Your task to perform on an android device: empty trash in google photos Image 0: 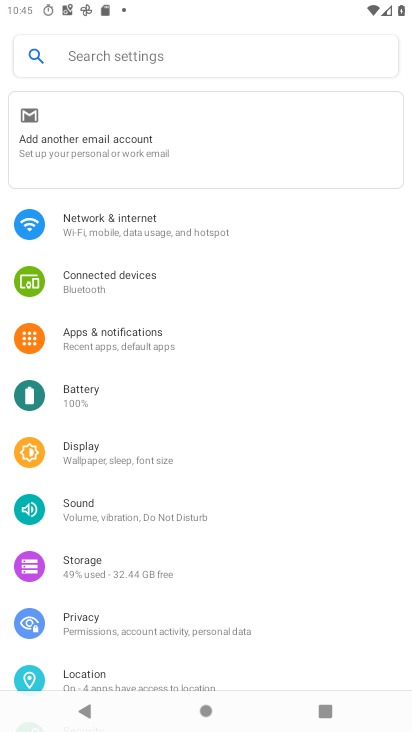
Step 0: drag from (105, 585) to (124, 249)
Your task to perform on an android device: empty trash in google photos Image 1: 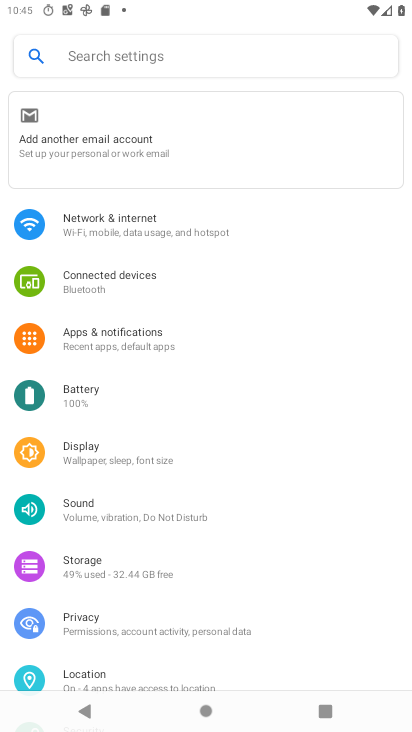
Step 1: drag from (191, 473) to (229, 178)
Your task to perform on an android device: empty trash in google photos Image 2: 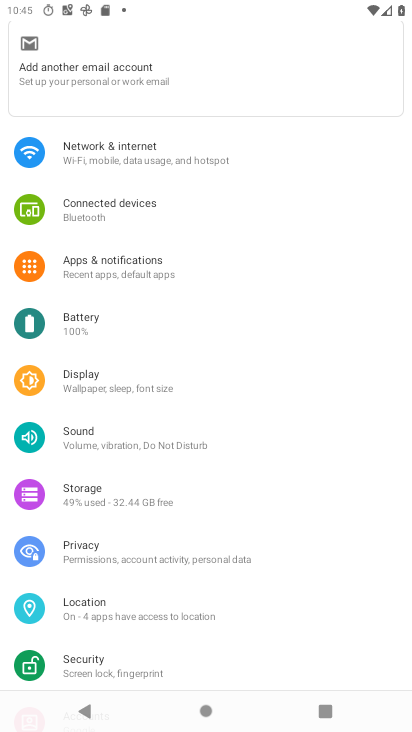
Step 2: drag from (185, 458) to (170, 236)
Your task to perform on an android device: empty trash in google photos Image 3: 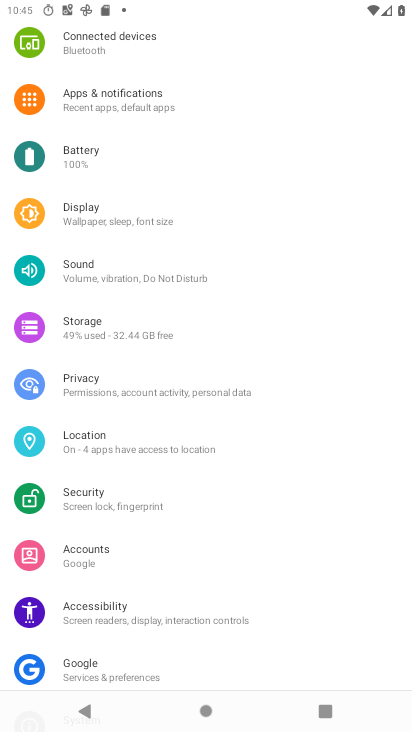
Step 3: drag from (117, 465) to (117, 107)
Your task to perform on an android device: empty trash in google photos Image 4: 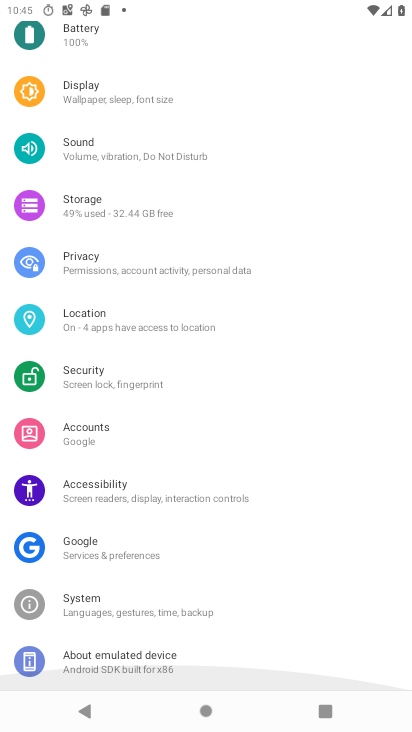
Step 4: drag from (139, 452) to (134, 244)
Your task to perform on an android device: empty trash in google photos Image 5: 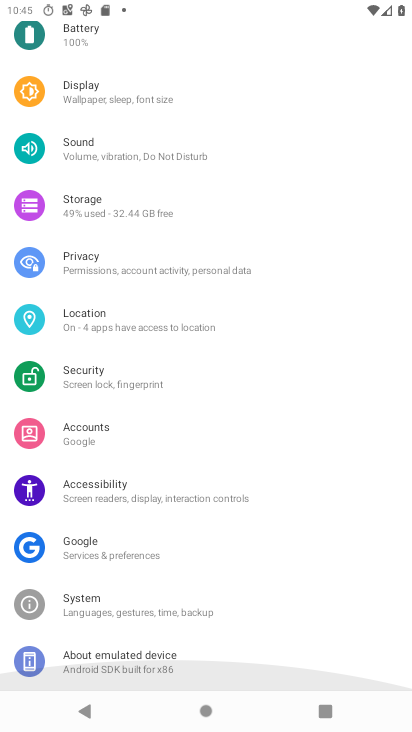
Step 5: drag from (140, 540) to (131, 233)
Your task to perform on an android device: empty trash in google photos Image 6: 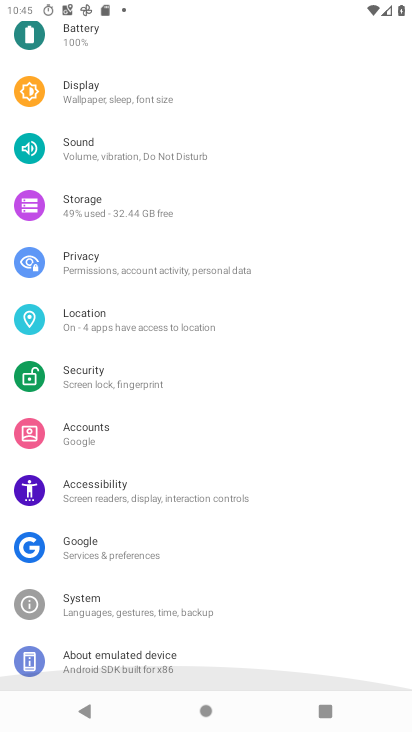
Step 6: drag from (122, 513) to (108, 202)
Your task to perform on an android device: empty trash in google photos Image 7: 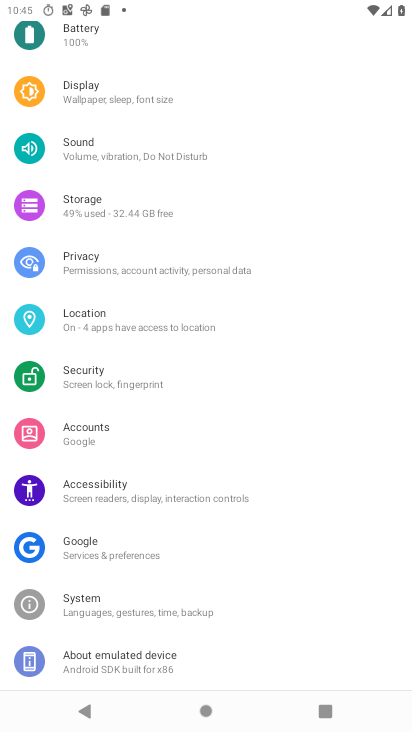
Step 7: drag from (170, 530) to (176, 255)
Your task to perform on an android device: empty trash in google photos Image 8: 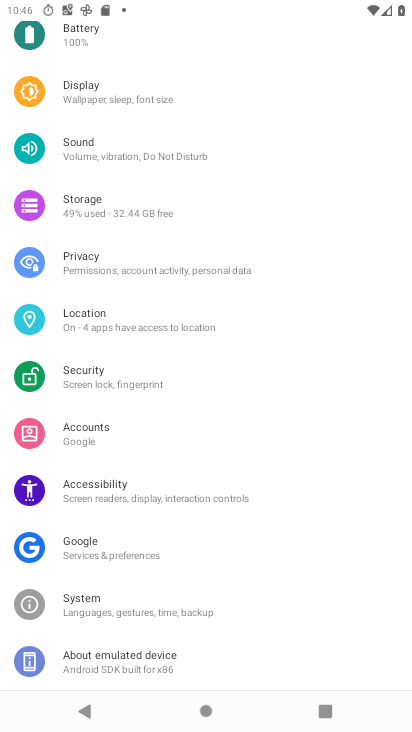
Step 8: drag from (96, 233) to (178, 638)
Your task to perform on an android device: empty trash in google photos Image 9: 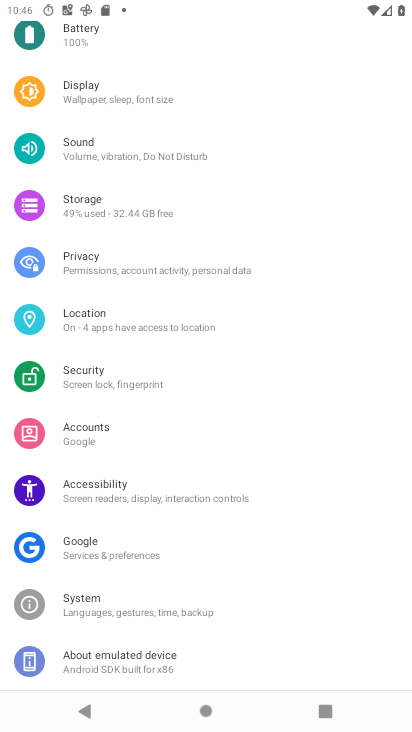
Step 9: drag from (137, 292) to (139, 613)
Your task to perform on an android device: empty trash in google photos Image 10: 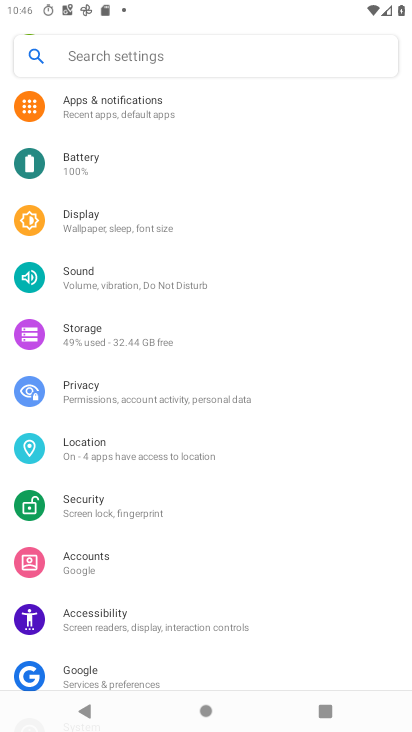
Step 10: drag from (122, 456) to (147, 631)
Your task to perform on an android device: empty trash in google photos Image 11: 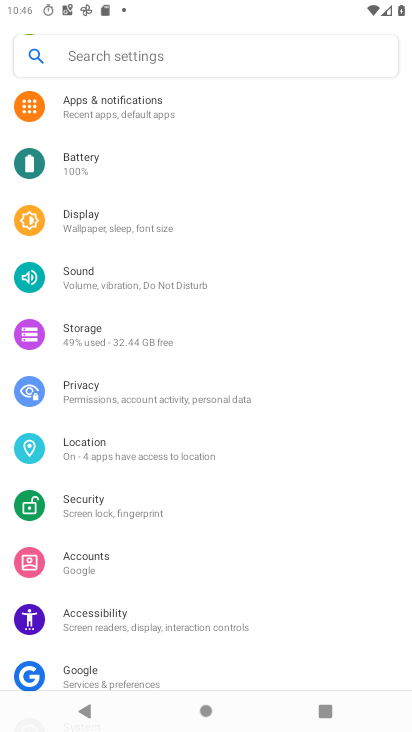
Step 11: drag from (118, 327) to (148, 523)
Your task to perform on an android device: empty trash in google photos Image 12: 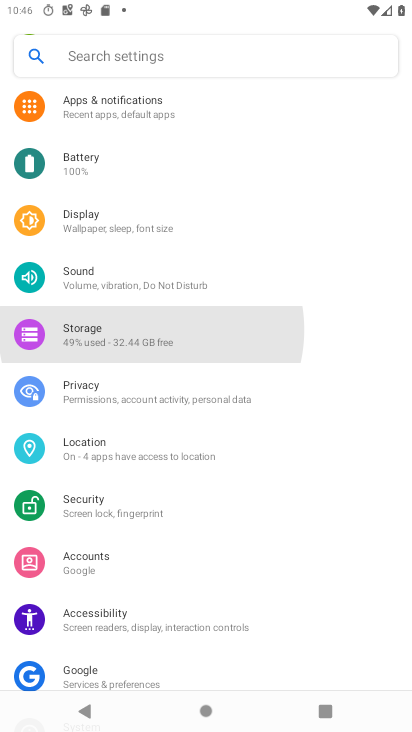
Step 12: drag from (129, 294) to (113, 521)
Your task to perform on an android device: empty trash in google photos Image 13: 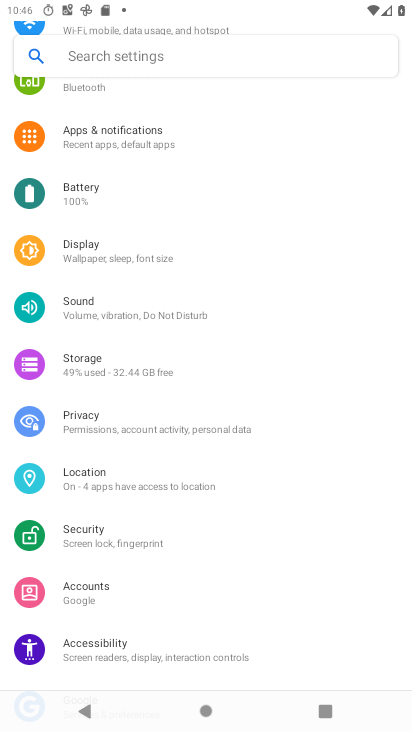
Step 13: drag from (93, 236) to (147, 499)
Your task to perform on an android device: empty trash in google photos Image 14: 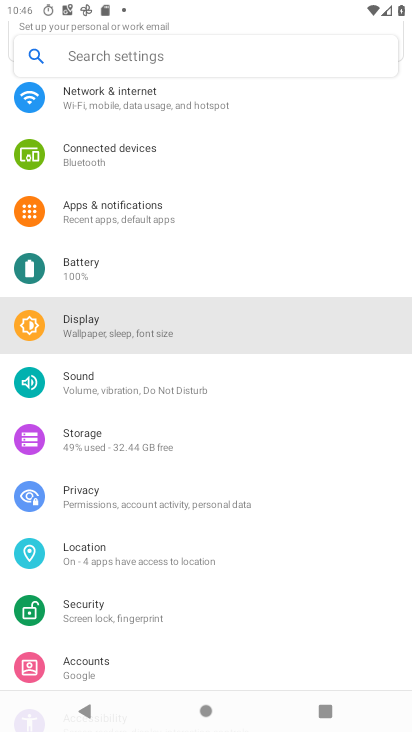
Step 14: drag from (95, 256) to (95, 547)
Your task to perform on an android device: empty trash in google photos Image 15: 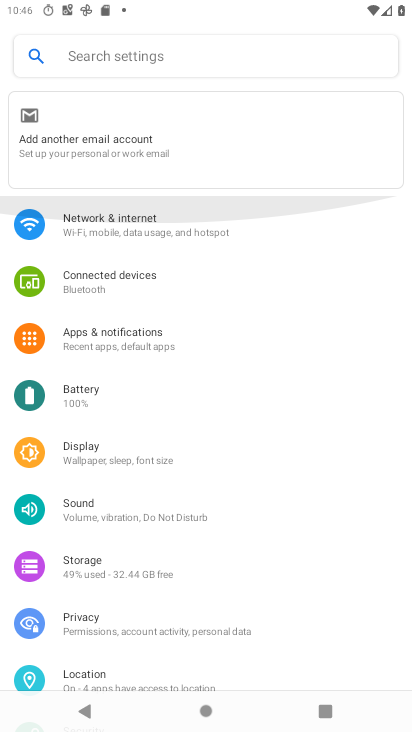
Step 15: drag from (103, 283) to (135, 502)
Your task to perform on an android device: empty trash in google photos Image 16: 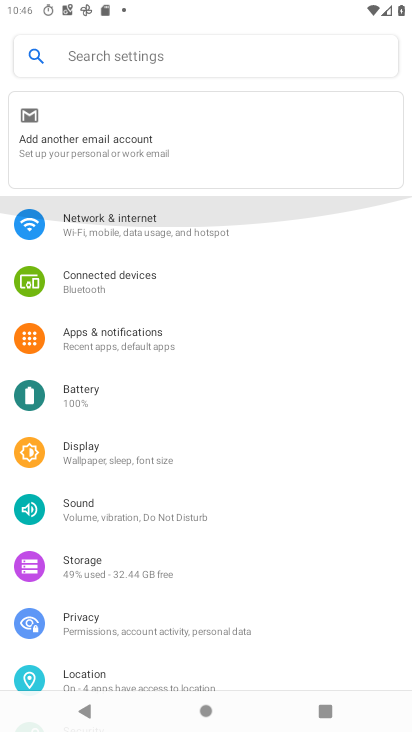
Step 16: drag from (116, 399) to (122, 475)
Your task to perform on an android device: empty trash in google photos Image 17: 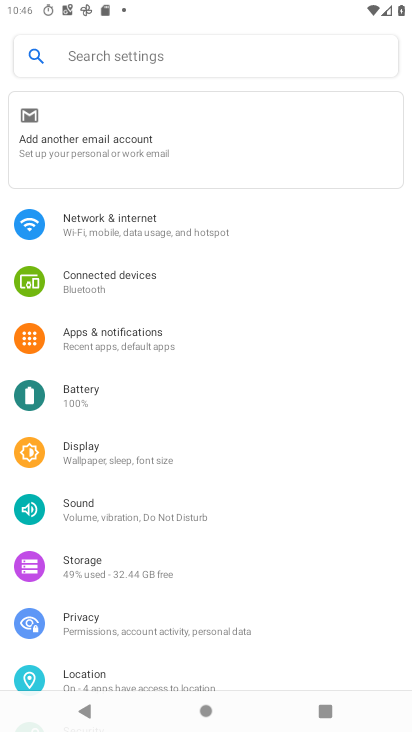
Step 17: drag from (104, 596) to (133, 316)
Your task to perform on an android device: empty trash in google photos Image 18: 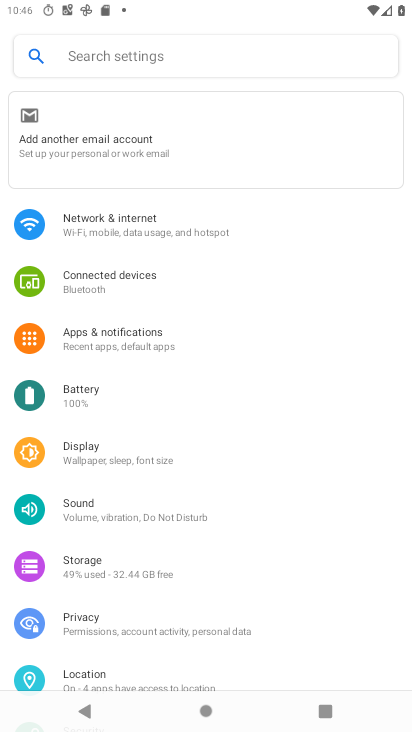
Step 18: drag from (131, 512) to (160, 292)
Your task to perform on an android device: empty trash in google photos Image 19: 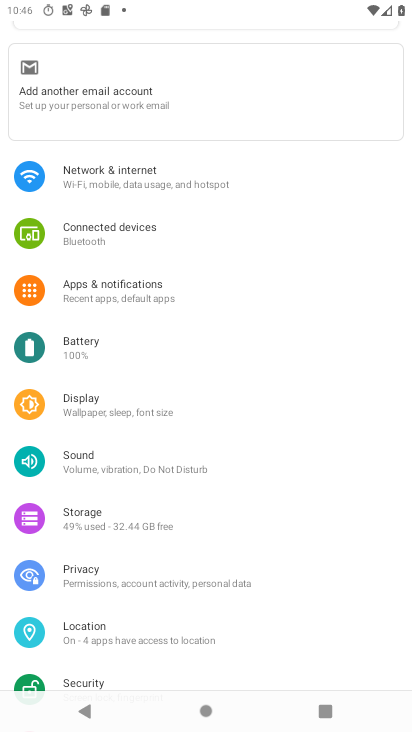
Step 19: press back button
Your task to perform on an android device: empty trash in google photos Image 20: 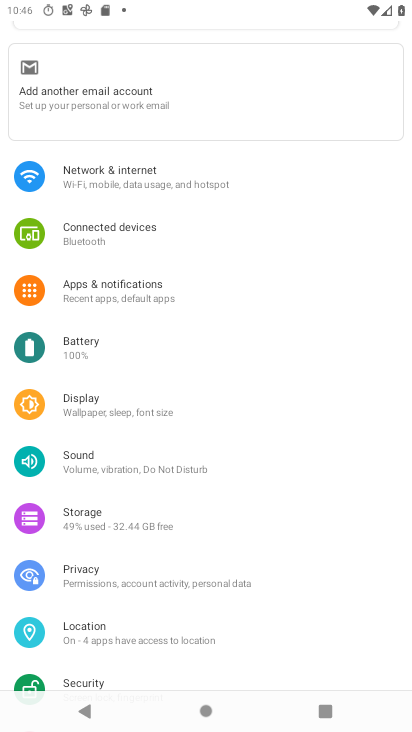
Step 20: press back button
Your task to perform on an android device: empty trash in google photos Image 21: 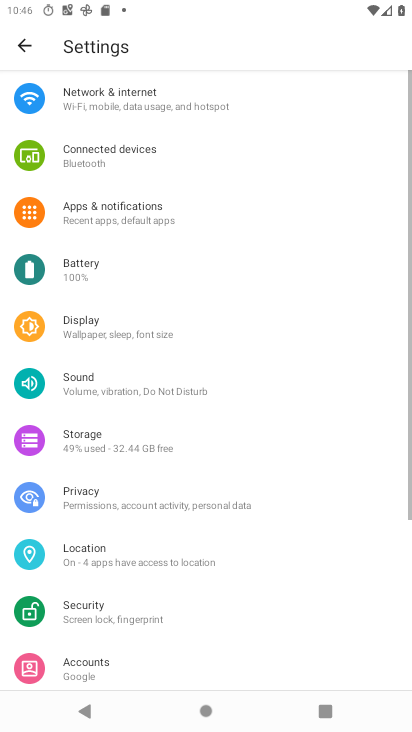
Step 21: press back button
Your task to perform on an android device: empty trash in google photos Image 22: 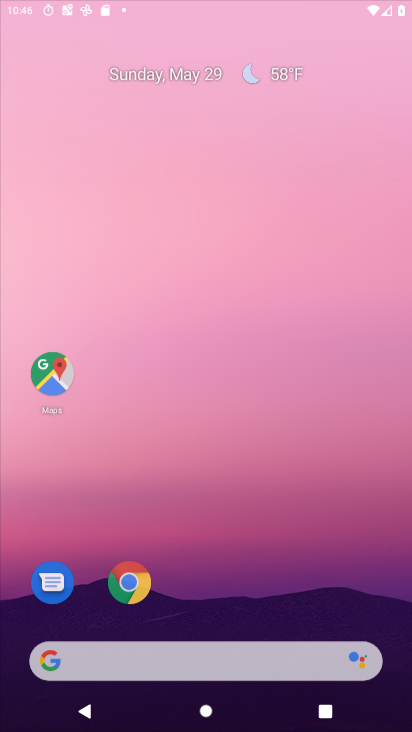
Step 22: press back button
Your task to perform on an android device: empty trash in google photos Image 23: 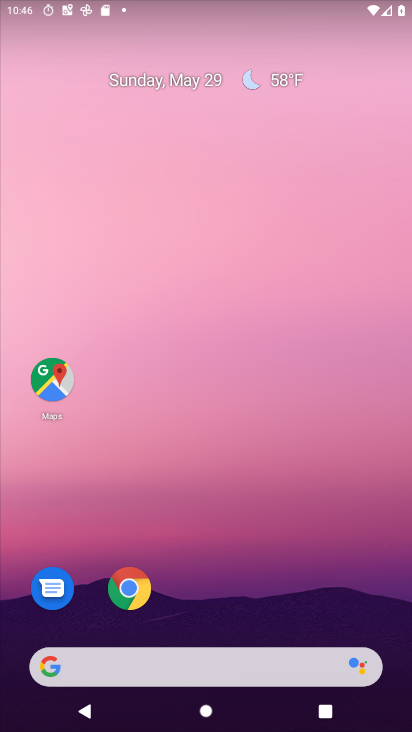
Step 23: drag from (266, 721) to (147, 197)
Your task to perform on an android device: empty trash in google photos Image 24: 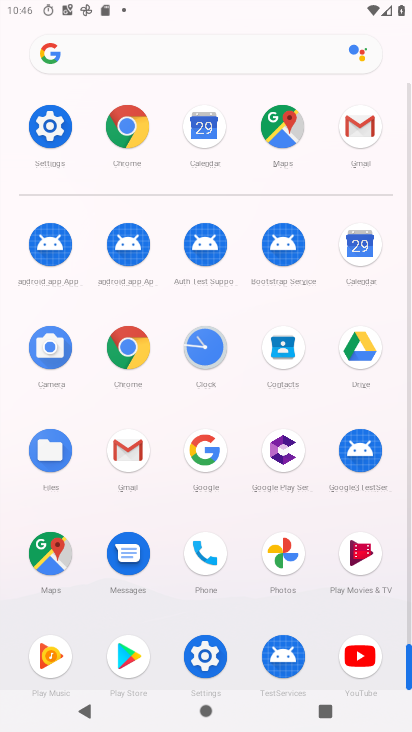
Step 24: click (282, 550)
Your task to perform on an android device: empty trash in google photos Image 25: 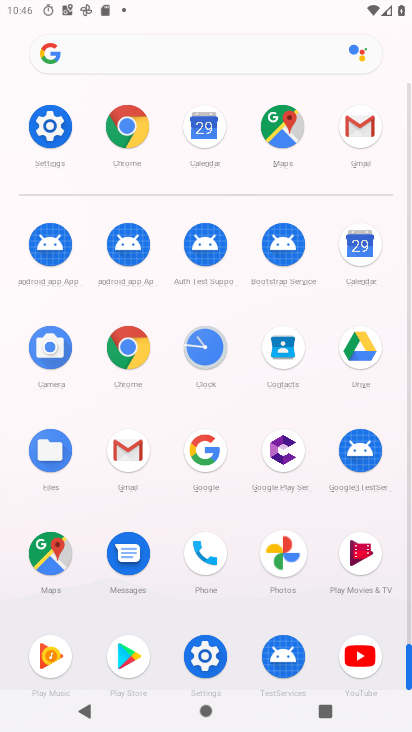
Step 25: click (284, 551)
Your task to perform on an android device: empty trash in google photos Image 26: 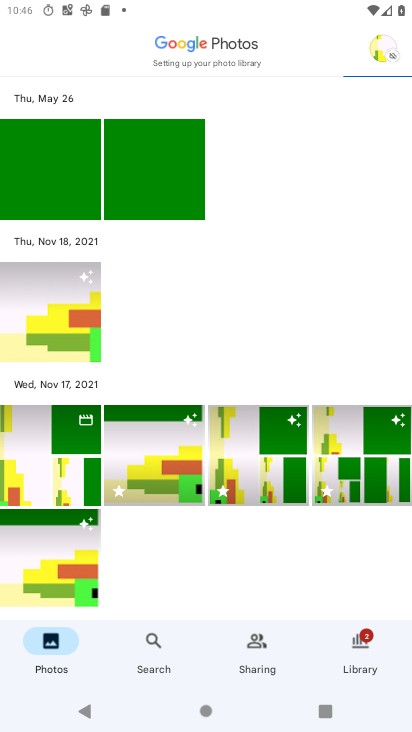
Step 26: task complete